Your task to perform on an android device: turn off priority inbox in the gmail app Image 0: 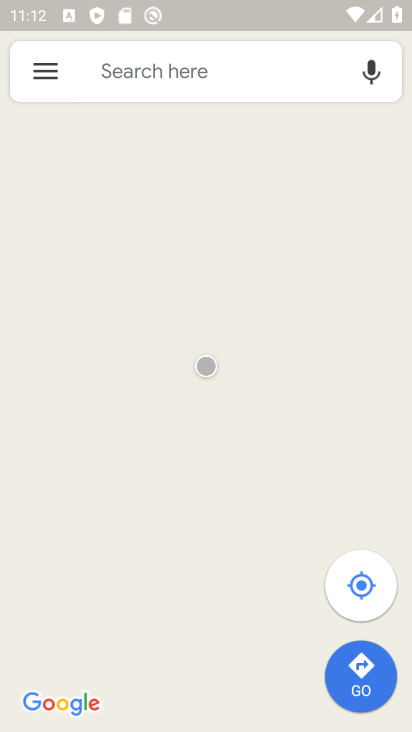
Step 0: press home button
Your task to perform on an android device: turn off priority inbox in the gmail app Image 1: 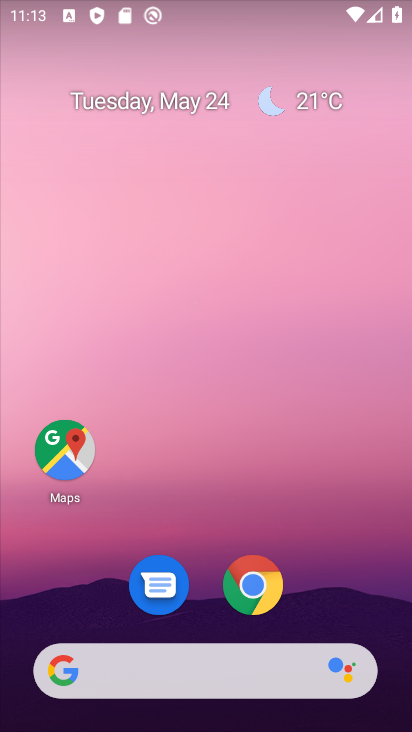
Step 1: drag from (216, 508) to (241, 12)
Your task to perform on an android device: turn off priority inbox in the gmail app Image 2: 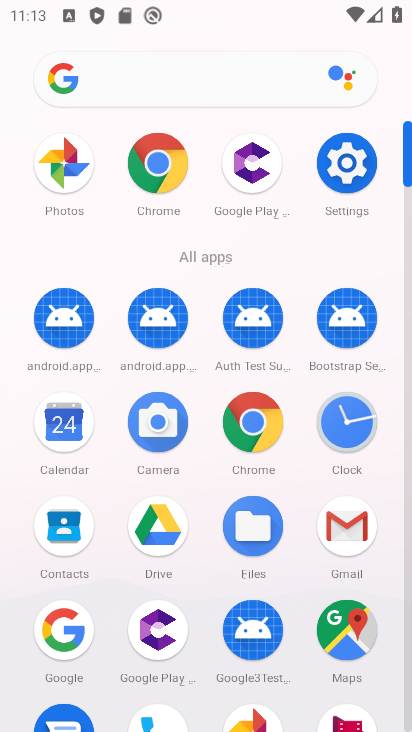
Step 2: click (335, 520)
Your task to perform on an android device: turn off priority inbox in the gmail app Image 3: 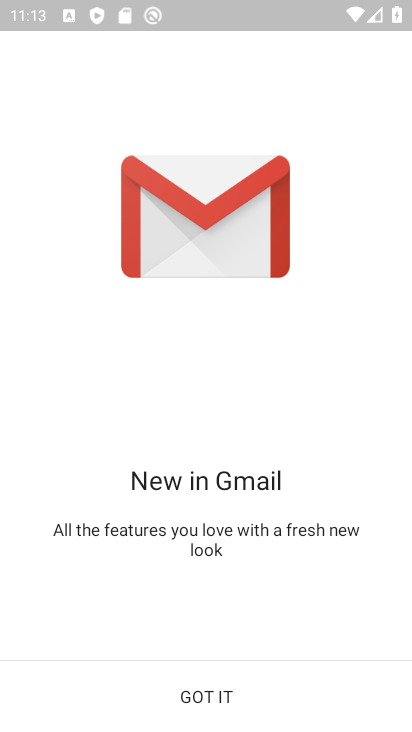
Step 3: click (282, 689)
Your task to perform on an android device: turn off priority inbox in the gmail app Image 4: 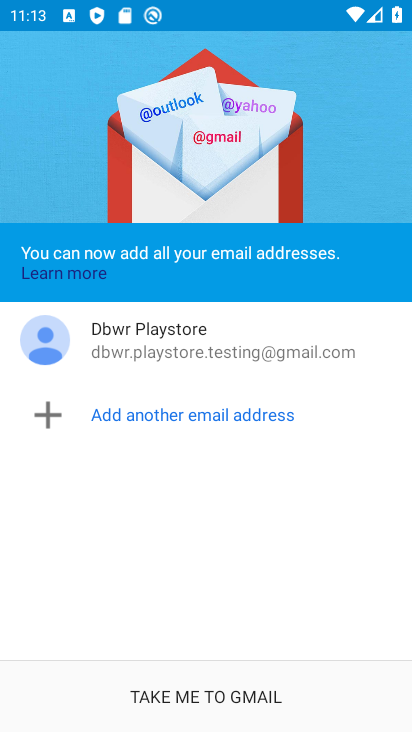
Step 4: click (283, 687)
Your task to perform on an android device: turn off priority inbox in the gmail app Image 5: 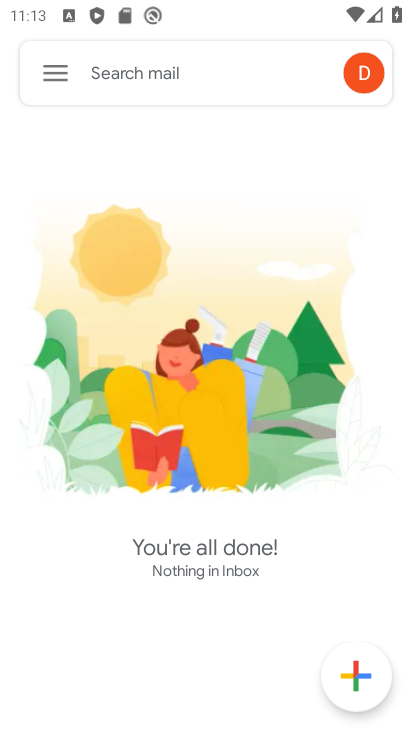
Step 5: click (54, 73)
Your task to perform on an android device: turn off priority inbox in the gmail app Image 6: 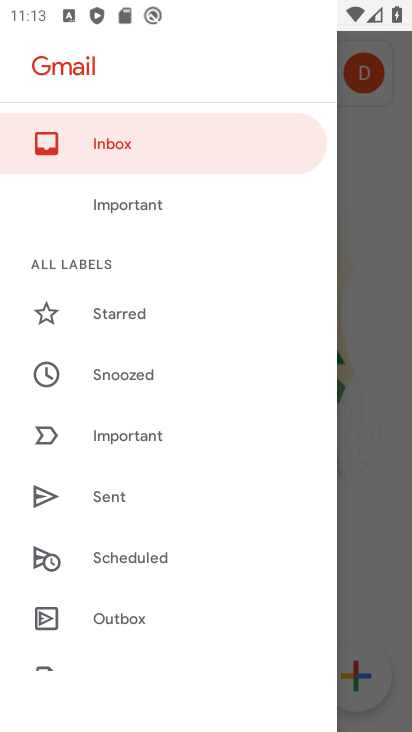
Step 6: drag from (169, 509) to (229, 3)
Your task to perform on an android device: turn off priority inbox in the gmail app Image 7: 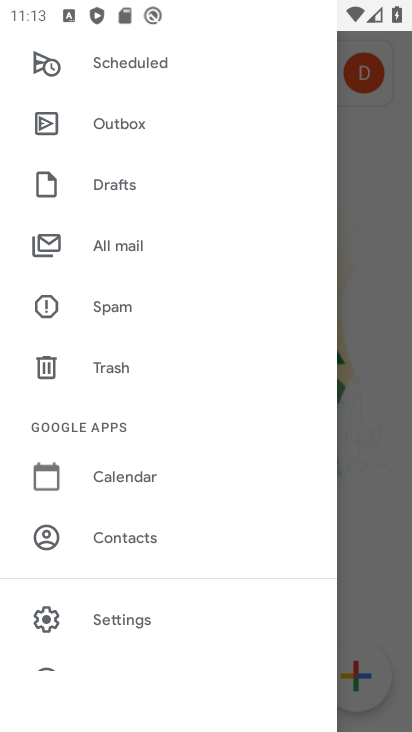
Step 7: click (141, 619)
Your task to perform on an android device: turn off priority inbox in the gmail app Image 8: 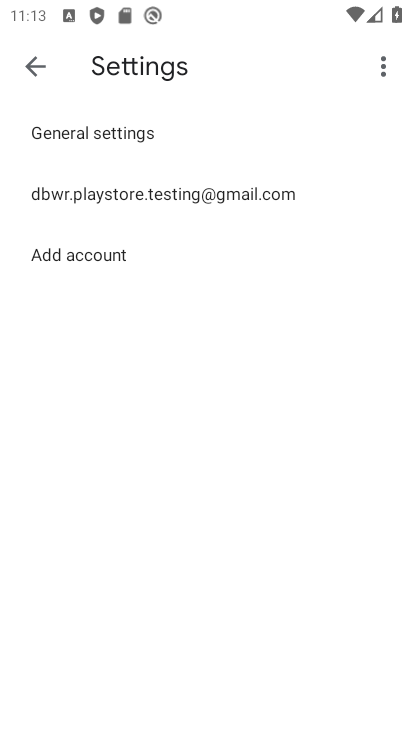
Step 8: click (189, 193)
Your task to perform on an android device: turn off priority inbox in the gmail app Image 9: 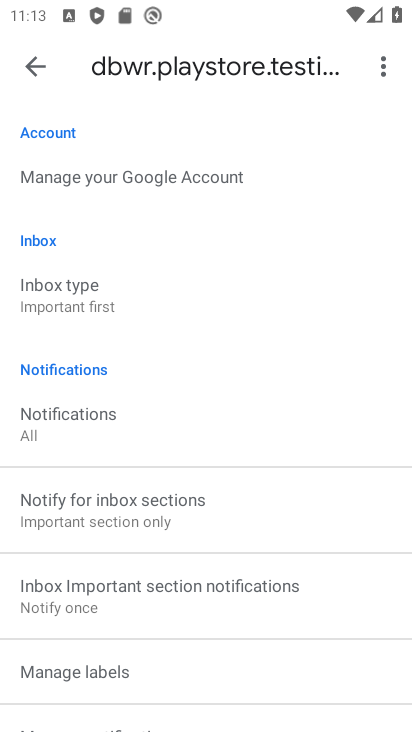
Step 9: click (97, 287)
Your task to perform on an android device: turn off priority inbox in the gmail app Image 10: 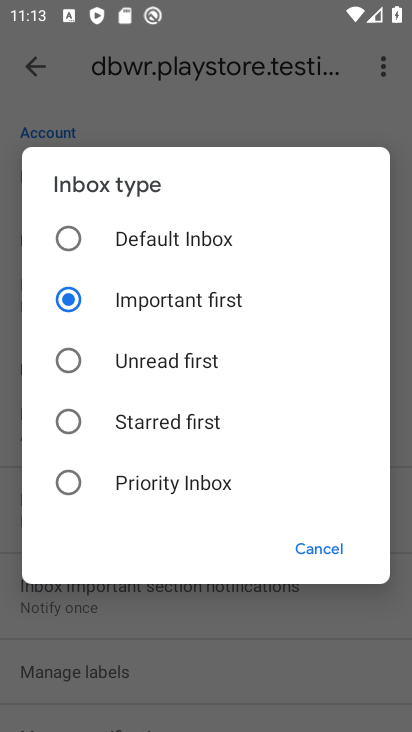
Step 10: click (79, 235)
Your task to perform on an android device: turn off priority inbox in the gmail app Image 11: 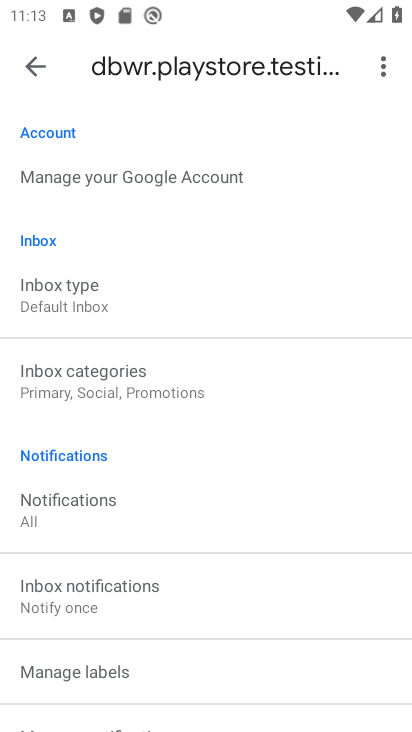
Step 11: task complete